Your task to perform on an android device: Go to Google maps Image 0: 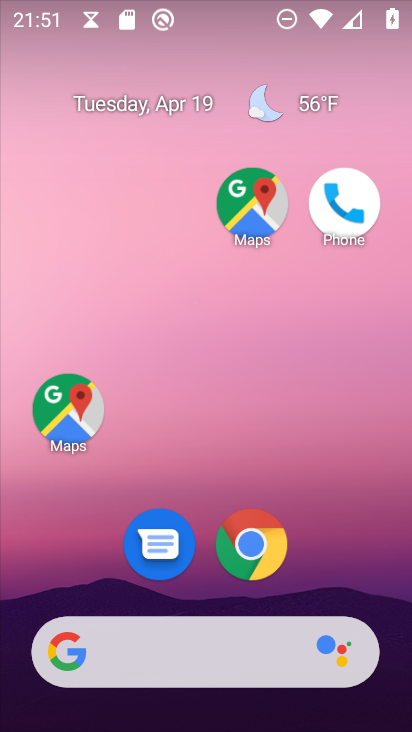
Step 0: drag from (182, 605) to (279, 81)
Your task to perform on an android device: Go to Google maps Image 1: 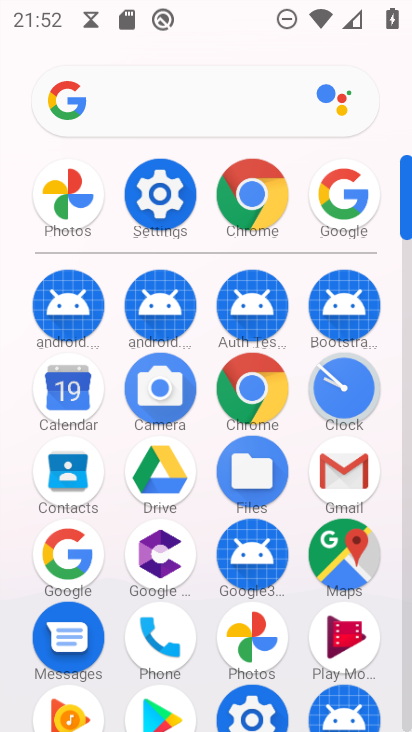
Step 1: click (335, 554)
Your task to perform on an android device: Go to Google maps Image 2: 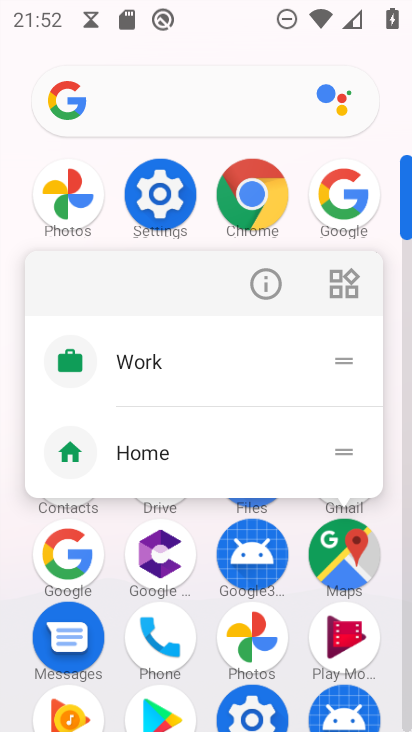
Step 2: click (342, 559)
Your task to perform on an android device: Go to Google maps Image 3: 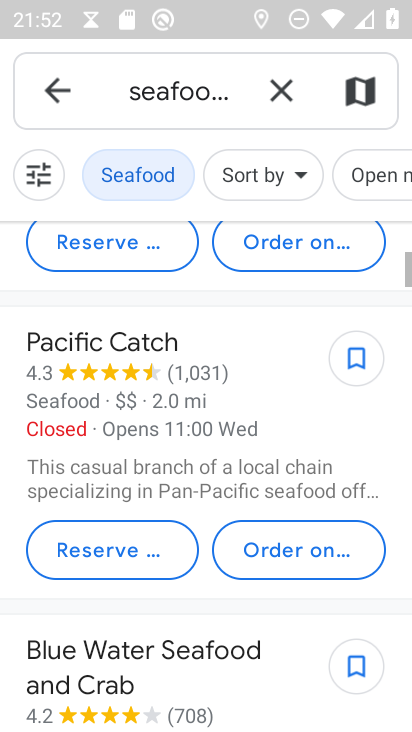
Step 3: click (53, 88)
Your task to perform on an android device: Go to Google maps Image 4: 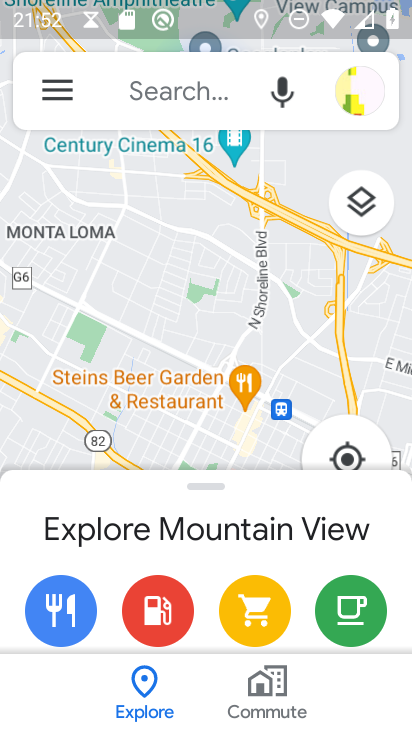
Step 4: task complete